Your task to perform on an android device: stop showing notifications on the lock screen Image 0: 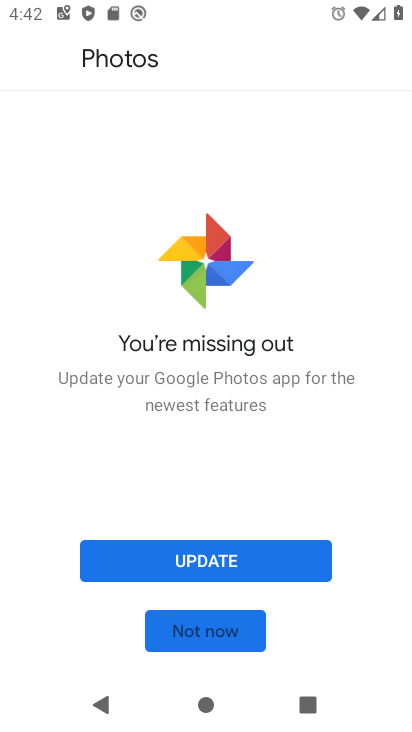
Step 0: press home button
Your task to perform on an android device: stop showing notifications on the lock screen Image 1: 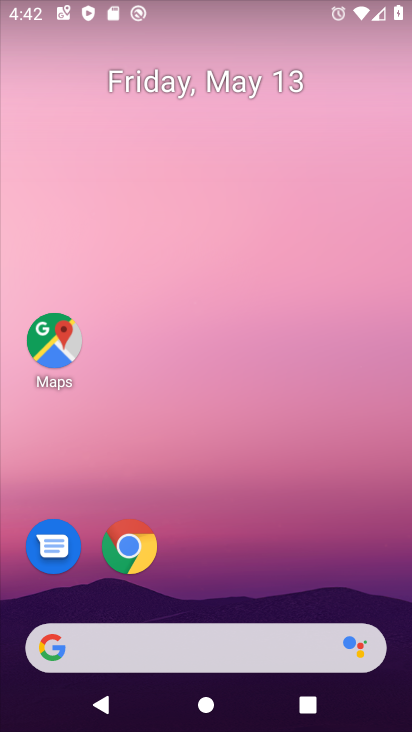
Step 1: drag from (215, 595) to (375, 26)
Your task to perform on an android device: stop showing notifications on the lock screen Image 2: 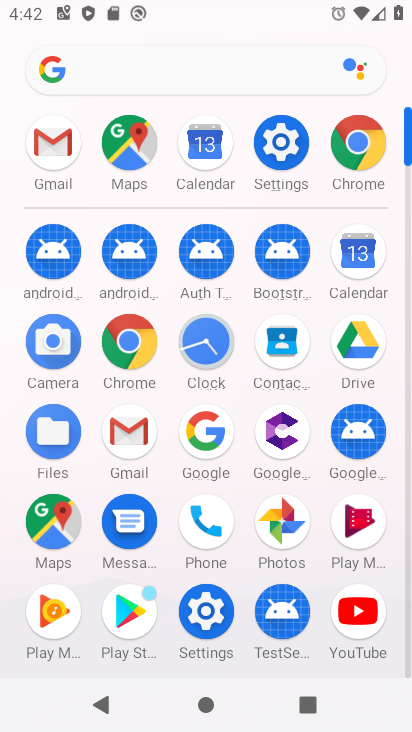
Step 2: click (210, 628)
Your task to perform on an android device: stop showing notifications on the lock screen Image 3: 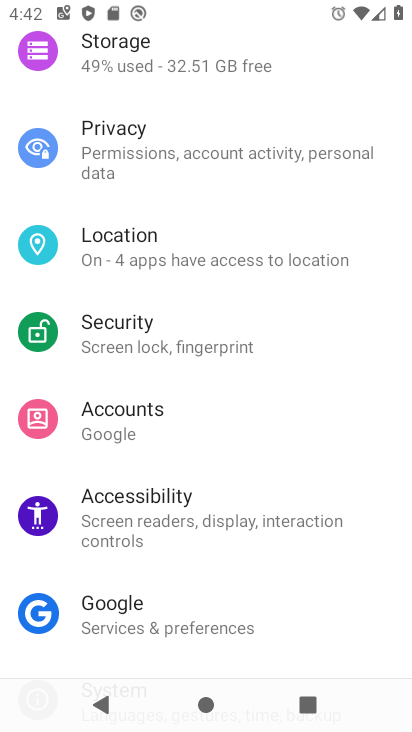
Step 3: drag from (223, 208) to (180, 726)
Your task to perform on an android device: stop showing notifications on the lock screen Image 4: 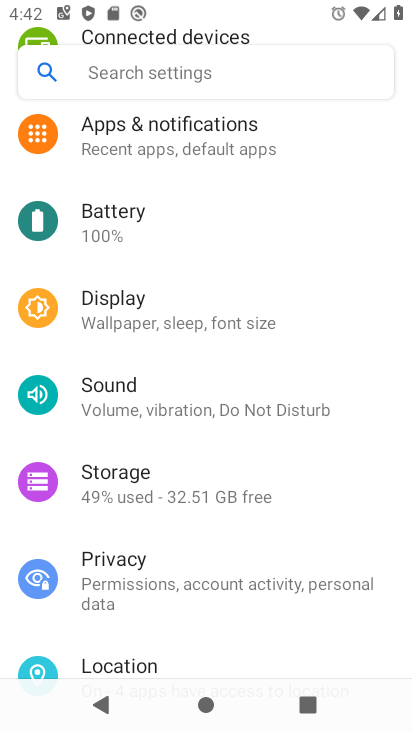
Step 4: drag from (233, 194) to (190, 726)
Your task to perform on an android device: stop showing notifications on the lock screen Image 5: 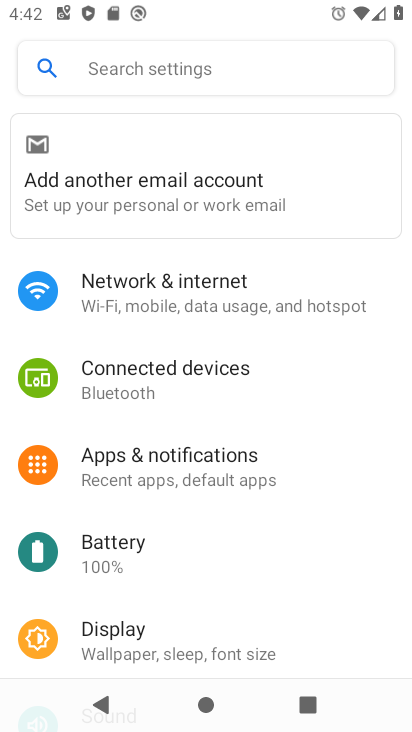
Step 5: click (174, 478)
Your task to perform on an android device: stop showing notifications on the lock screen Image 6: 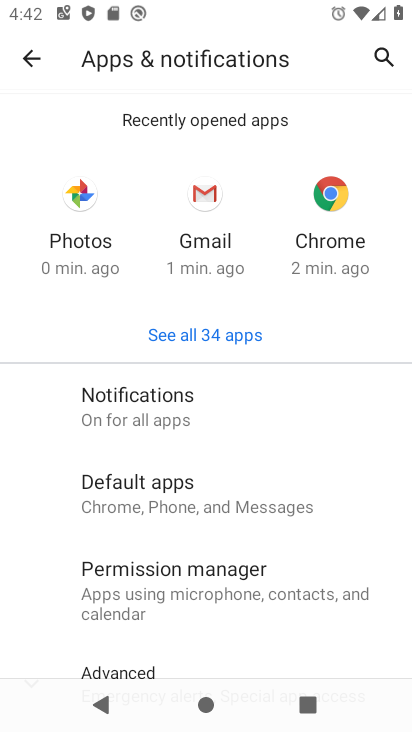
Step 6: click (168, 420)
Your task to perform on an android device: stop showing notifications on the lock screen Image 7: 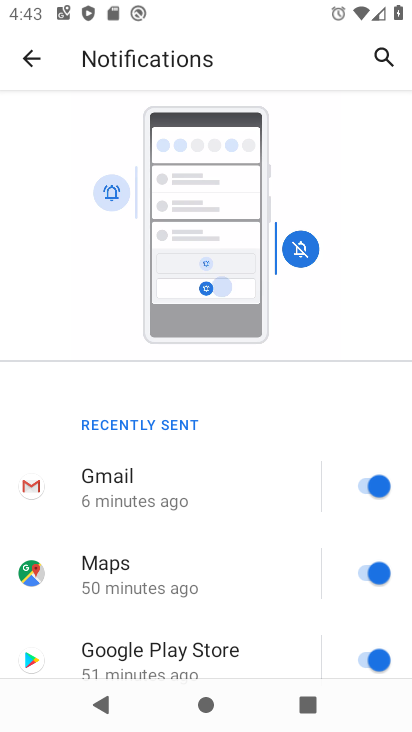
Step 7: drag from (184, 542) to (255, 212)
Your task to perform on an android device: stop showing notifications on the lock screen Image 8: 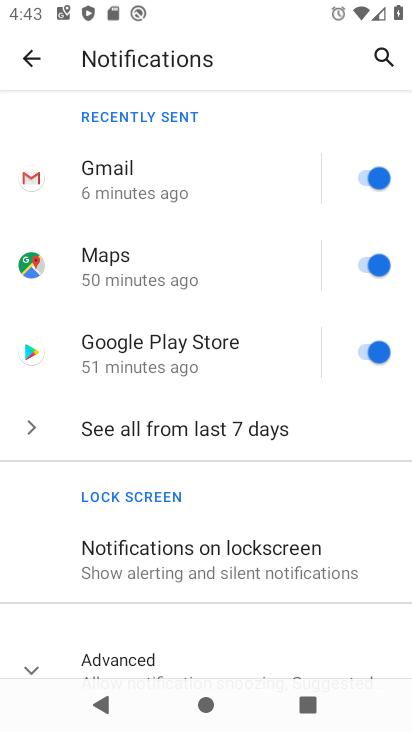
Step 8: drag from (257, 322) to (288, 125)
Your task to perform on an android device: stop showing notifications on the lock screen Image 9: 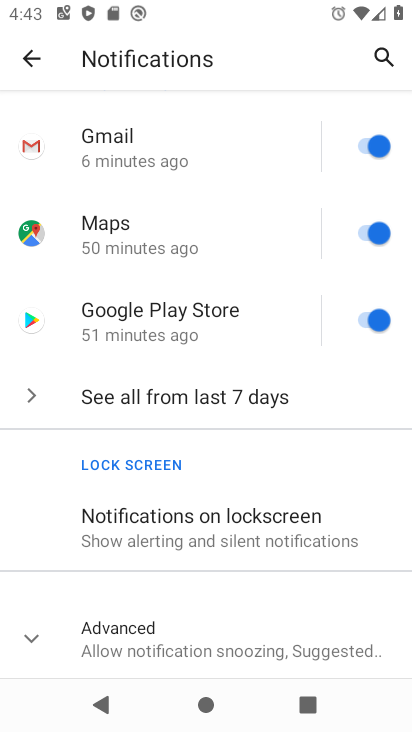
Step 9: click (187, 554)
Your task to perform on an android device: stop showing notifications on the lock screen Image 10: 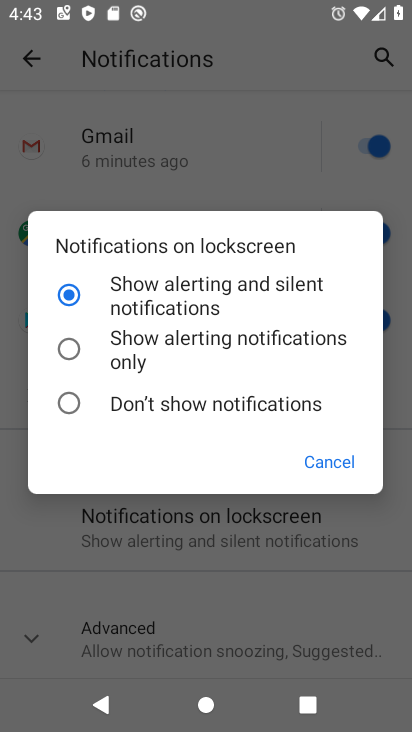
Step 10: click (95, 407)
Your task to perform on an android device: stop showing notifications on the lock screen Image 11: 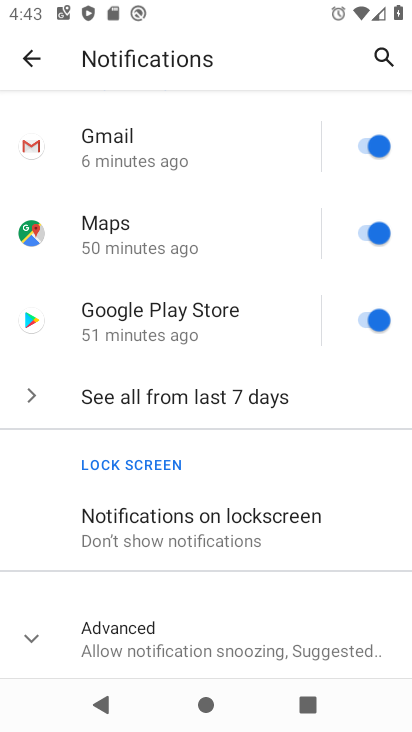
Step 11: task complete